Your task to perform on an android device: Turn on the flashlight Image 0: 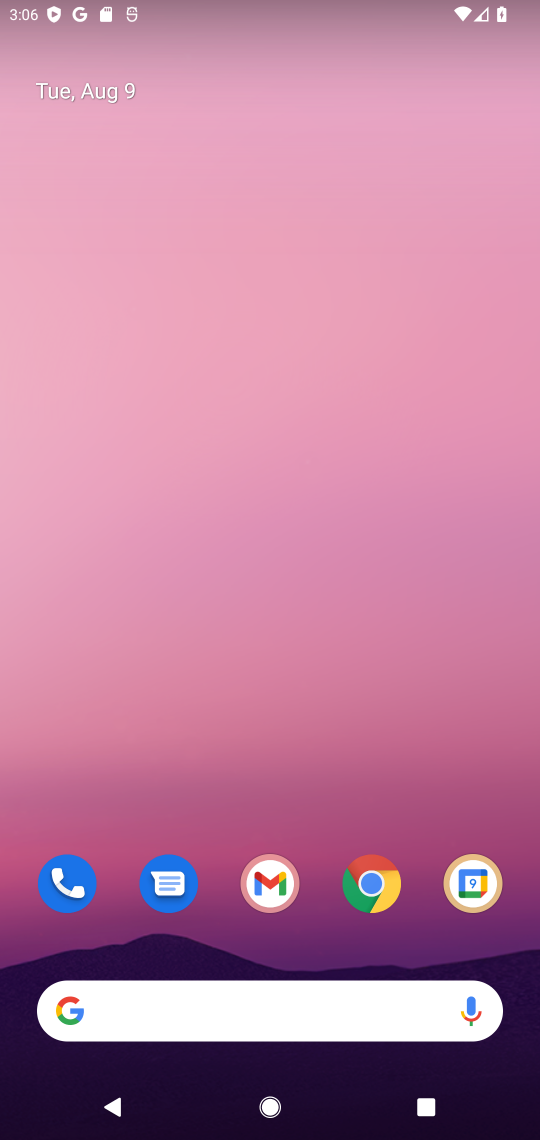
Step 0: drag from (300, 27) to (281, 914)
Your task to perform on an android device: Turn on the flashlight Image 1: 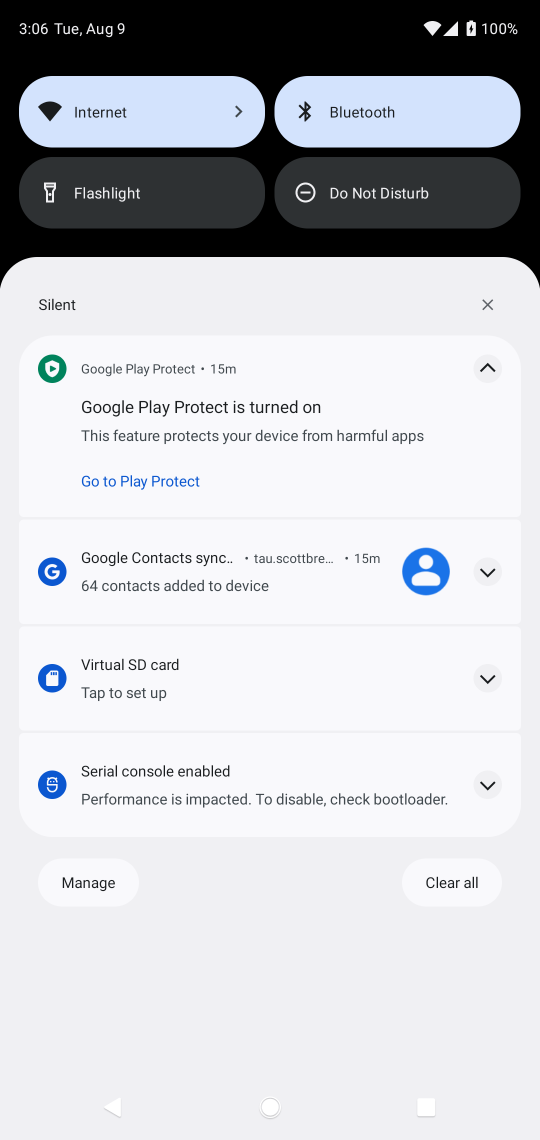
Step 1: click (108, 188)
Your task to perform on an android device: Turn on the flashlight Image 2: 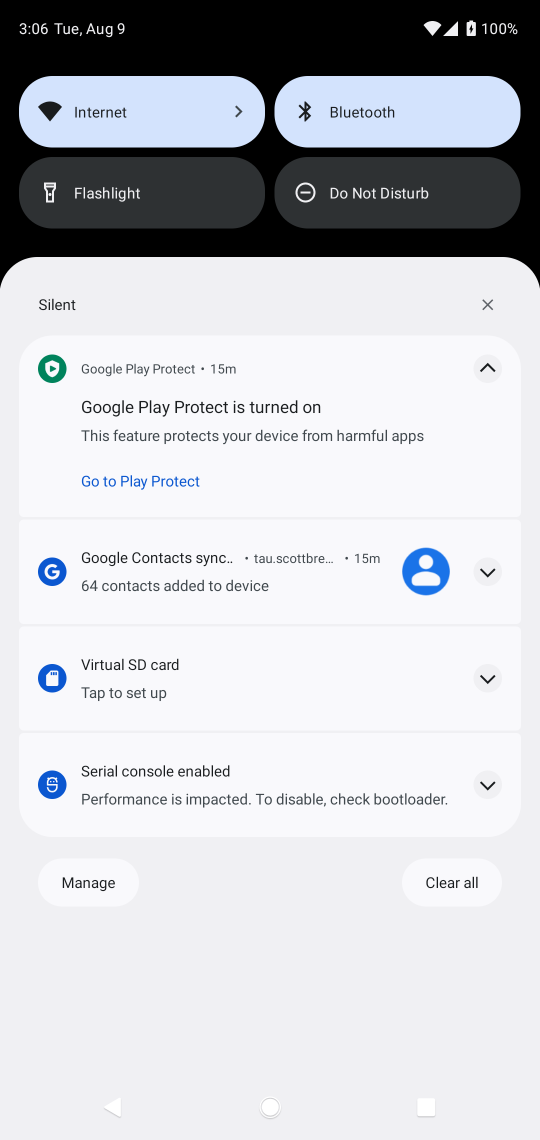
Step 2: click (108, 188)
Your task to perform on an android device: Turn on the flashlight Image 3: 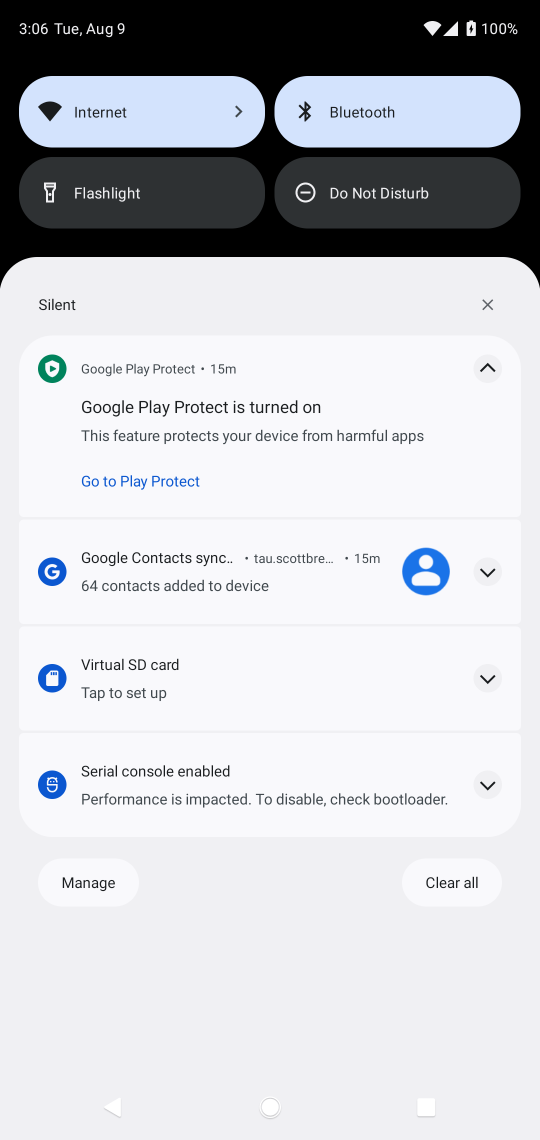
Step 3: task complete